Your task to perform on an android device: Set the phone to "Do not disturb". Image 0: 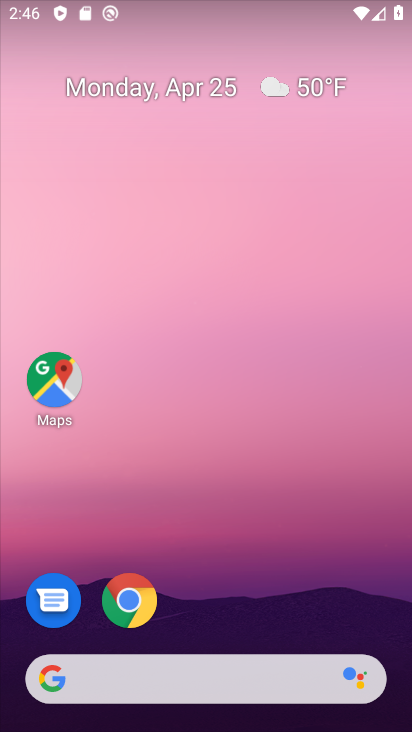
Step 0: drag from (220, 655) to (280, 30)
Your task to perform on an android device: Set the phone to "Do not disturb". Image 1: 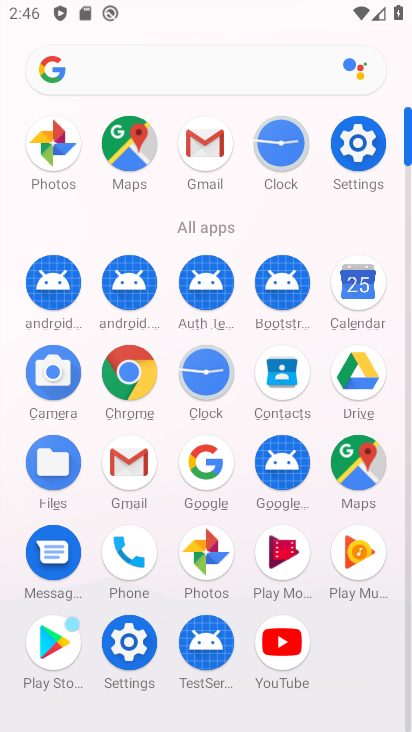
Step 1: drag from (238, 3) to (200, 575)
Your task to perform on an android device: Set the phone to "Do not disturb". Image 2: 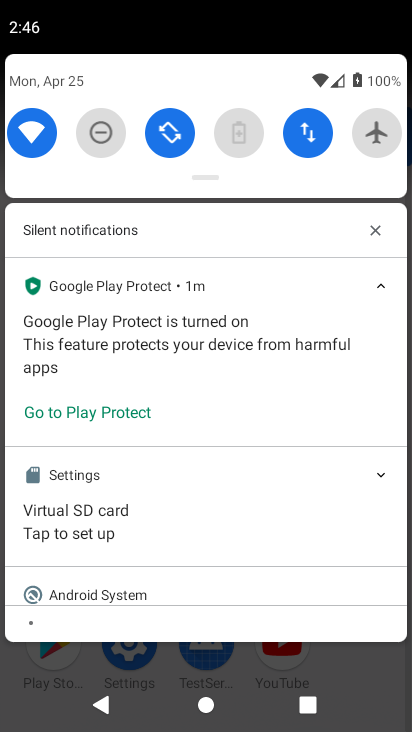
Step 2: click (97, 130)
Your task to perform on an android device: Set the phone to "Do not disturb". Image 3: 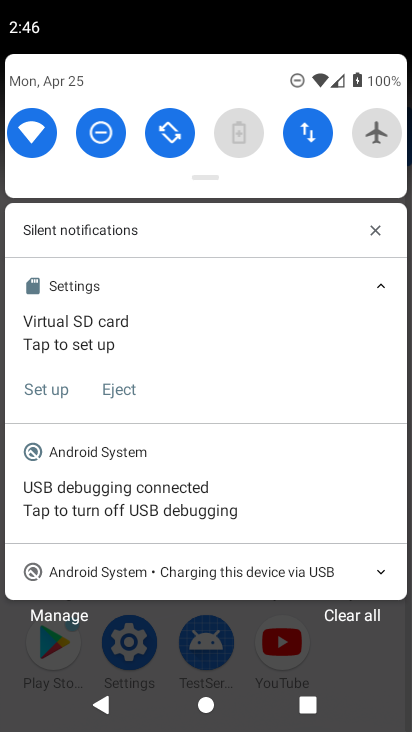
Step 3: task complete